Your task to perform on an android device: What's the weather going to be this weekend? Image 0: 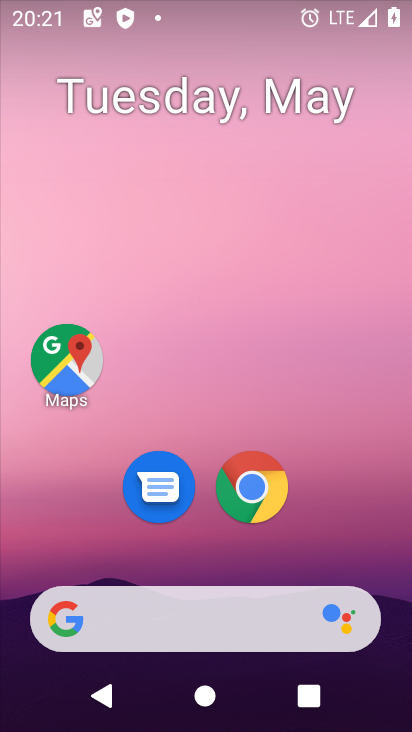
Step 0: click (186, 606)
Your task to perform on an android device: What's the weather going to be this weekend? Image 1: 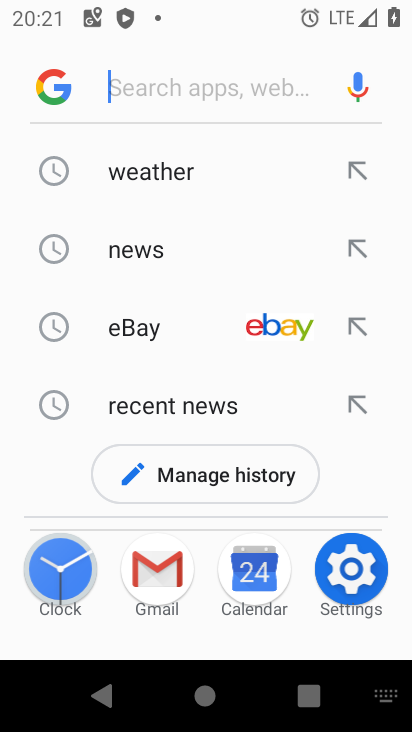
Step 1: click (156, 164)
Your task to perform on an android device: What's the weather going to be this weekend? Image 2: 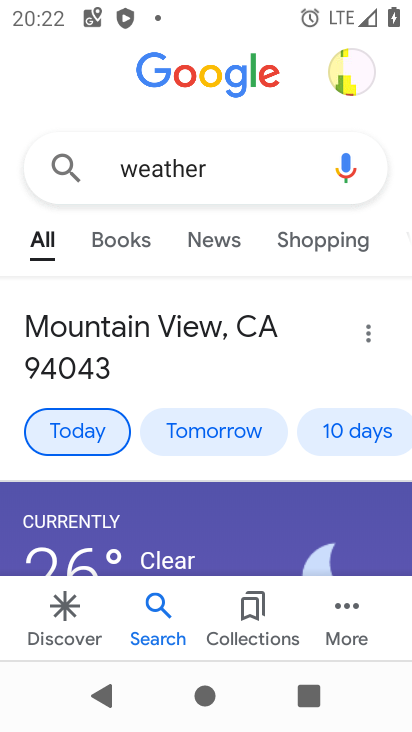
Step 2: drag from (266, 378) to (222, 35)
Your task to perform on an android device: What's the weather going to be this weekend? Image 3: 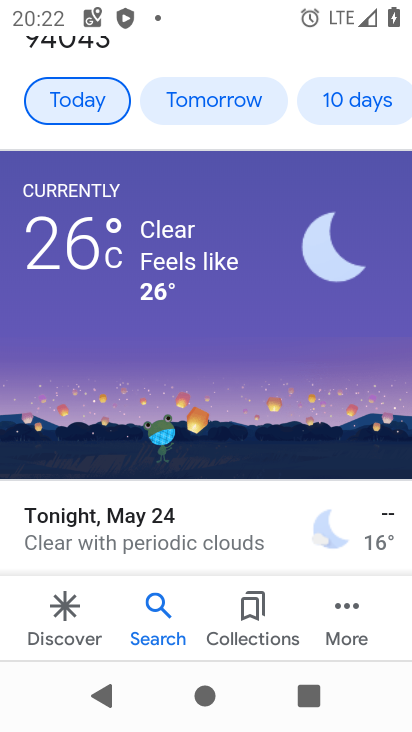
Step 3: drag from (239, 502) to (211, 214)
Your task to perform on an android device: What's the weather going to be this weekend? Image 4: 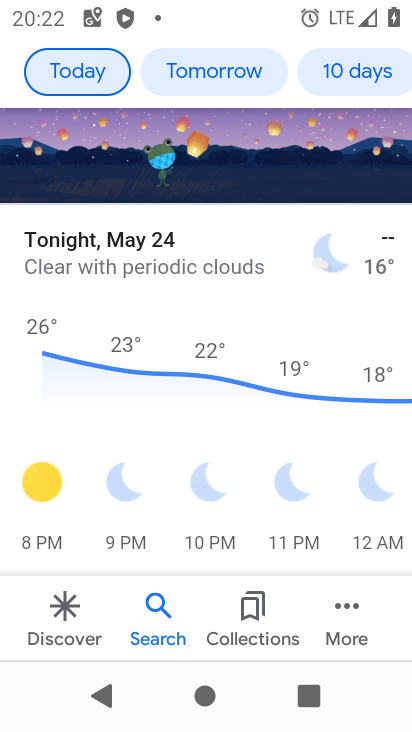
Step 4: click (350, 60)
Your task to perform on an android device: What's the weather going to be this weekend? Image 5: 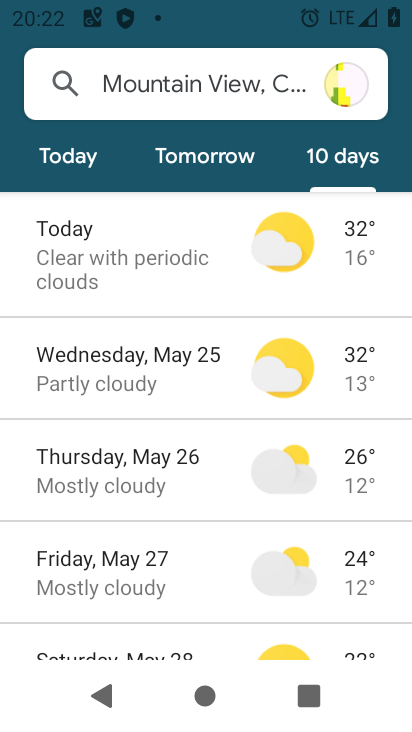
Step 5: task complete